Your task to perform on an android device: turn off improve location accuracy Image 0: 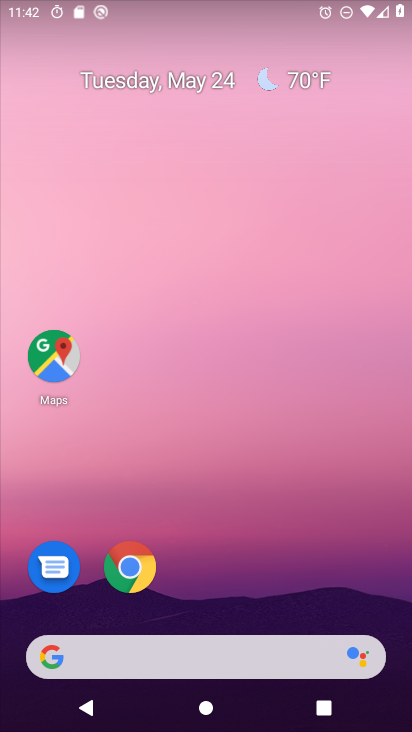
Step 0: drag from (391, 545) to (374, 242)
Your task to perform on an android device: turn off improve location accuracy Image 1: 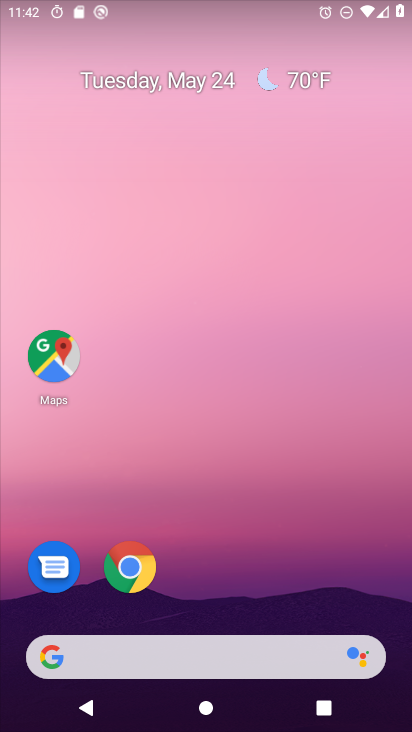
Step 1: drag from (395, 709) to (376, 206)
Your task to perform on an android device: turn off improve location accuracy Image 2: 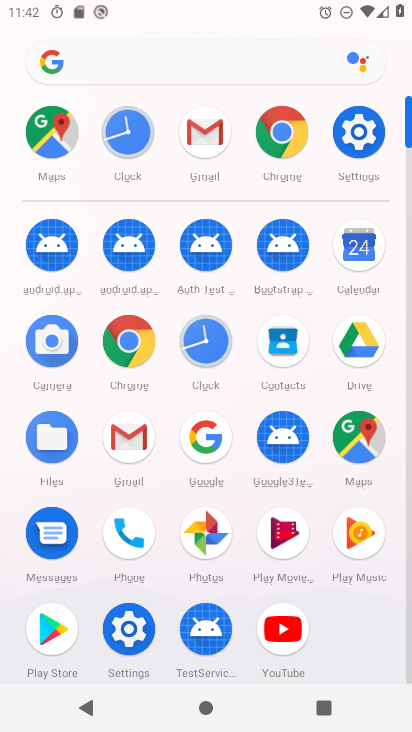
Step 2: click (349, 131)
Your task to perform on an android device: turn off improve location accuracy Image 3: 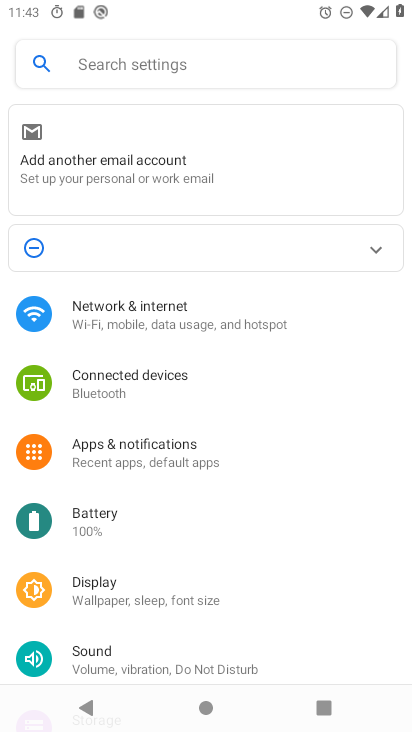
Step 3: drag from (311, 633) to (290, 360)
Your task to perform on an android device: turn off improve location accuracy Image 4: 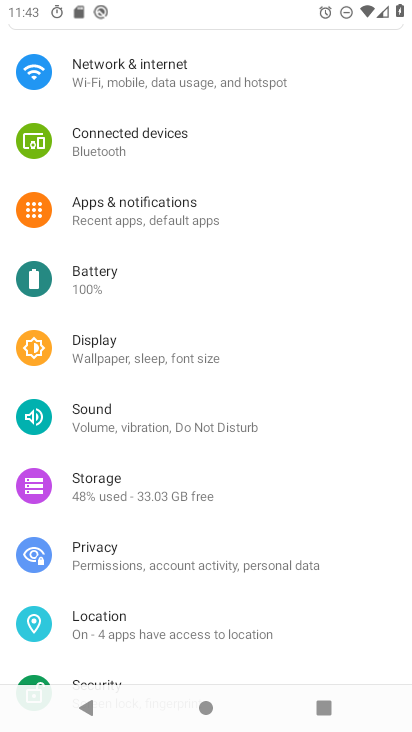
Step 4: click (88, 615)
Your task to perform on an android device: turn off improve location accuracy Image 5: 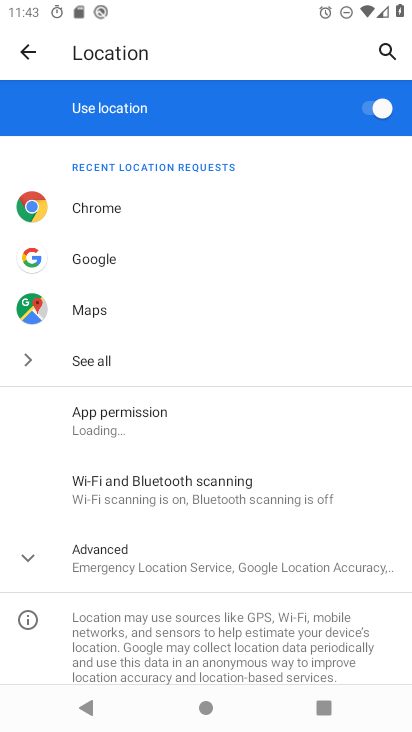
Step 5: click (24, 559)
Your task to perform on an android device: turn off improve location accuracy Image 6: 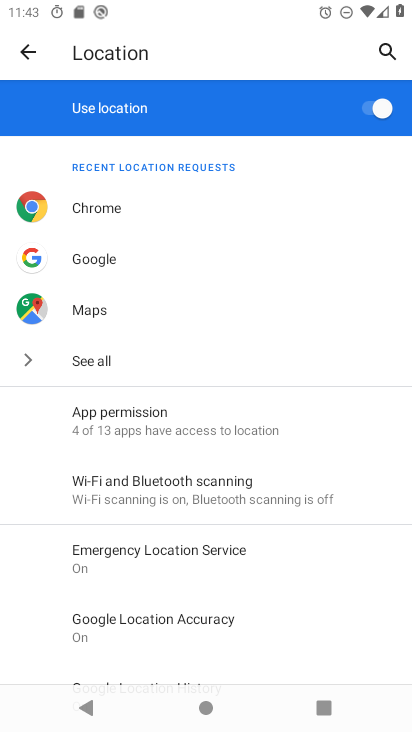
Step 6: drag from (311, 646) to (307, 260)
Your task to perform on an android device: turn off improve location accuracy Image 7: 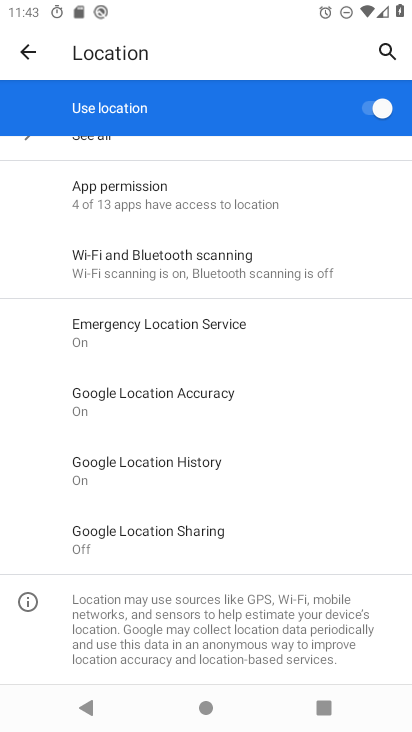
Step 7: click (174, 397)
Your task to perform on an android device: turn off improve location accuracy Image 8: 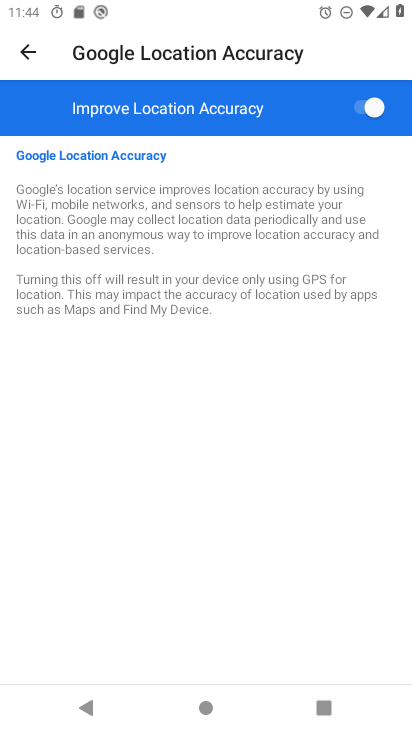
Step 8: click (366, 105)
Your task to perform on an android device: turn off improve location accuracy Image 9: 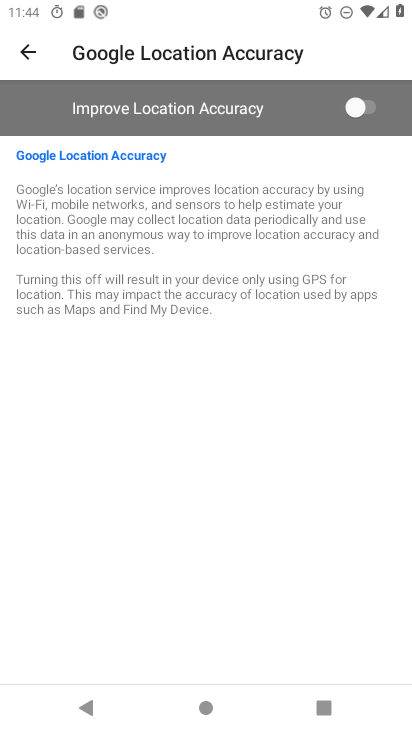
Step 9: task complete